Your task to perform on an android device: choose inbox layout in the gmail app Image 0: 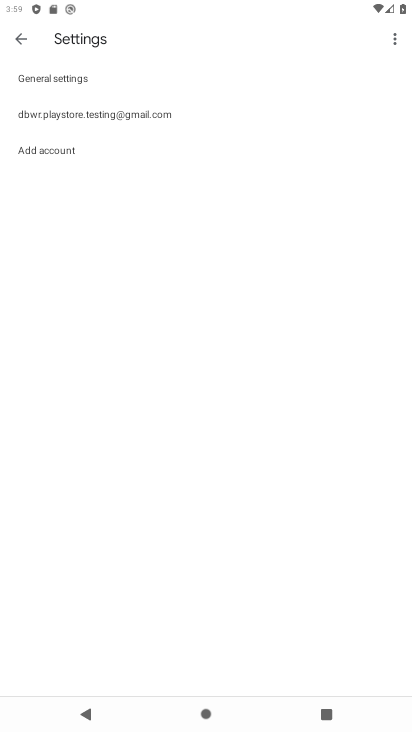
Step 0: press home button
Your task to perform on an android device: choose inbox layout in the gmail app Image 1: 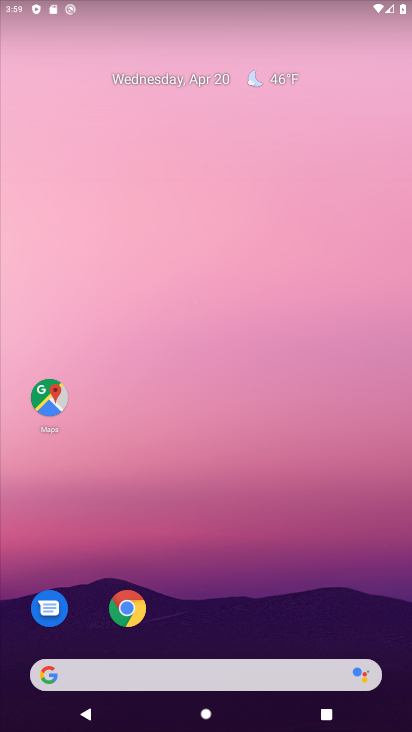
Step 1: drag from (198, 649) to (120, 35)
Your task to perform on an android device: choose inbox layout in the gmail app Image 2: 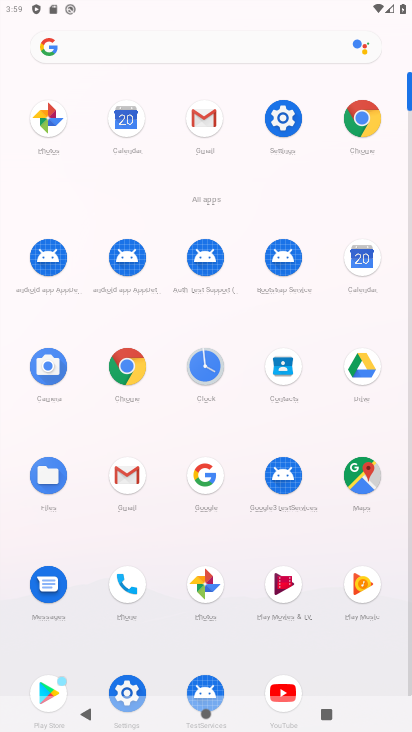
Step 2: click (132, 481)
Your task to perform on an android device: choose inbox layout in the gmail app Image 3: 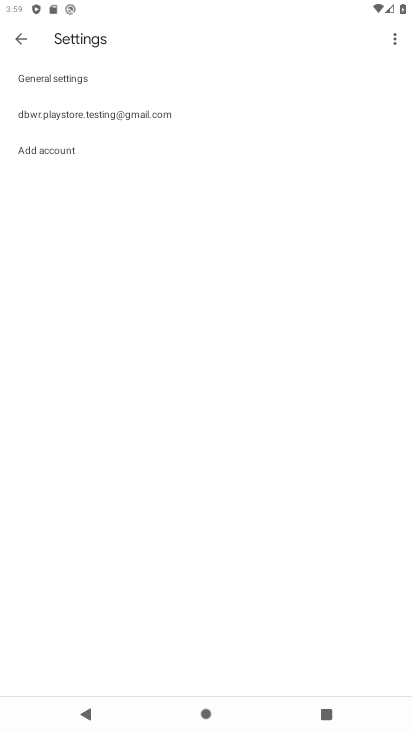
Step 3: click (91, 107)
Your task to perform on an android device: choose inbox layout in the gmail app Image 4: 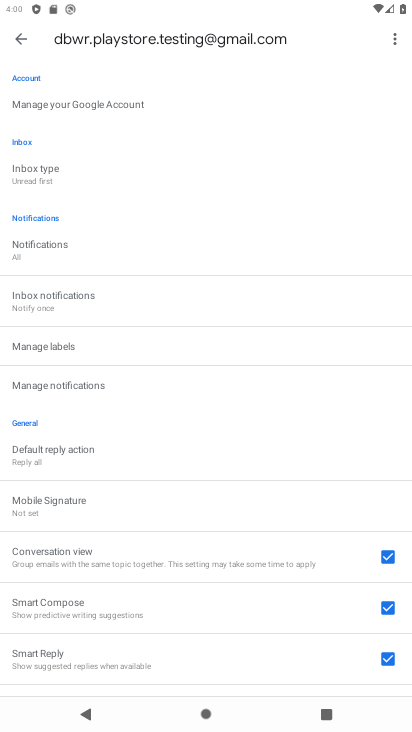
Step 4: click (39, 164)
Your task to perform on an android device: choose inbox layout in the gmail app Image 5: 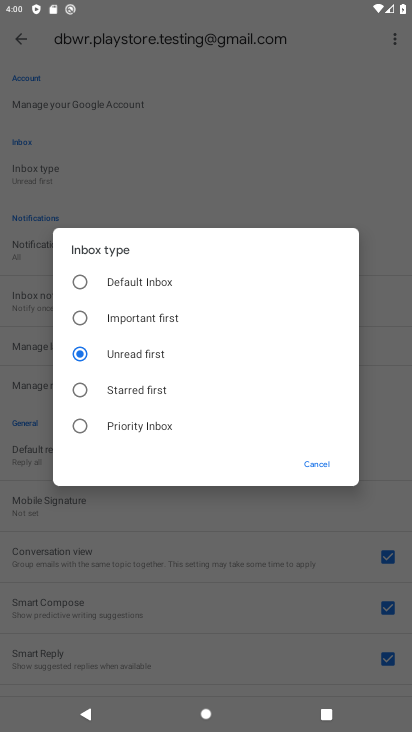
Step 5: click (91, 434)
Your task to perform on an android device: choose inbox layout in the gmail app Image 6: 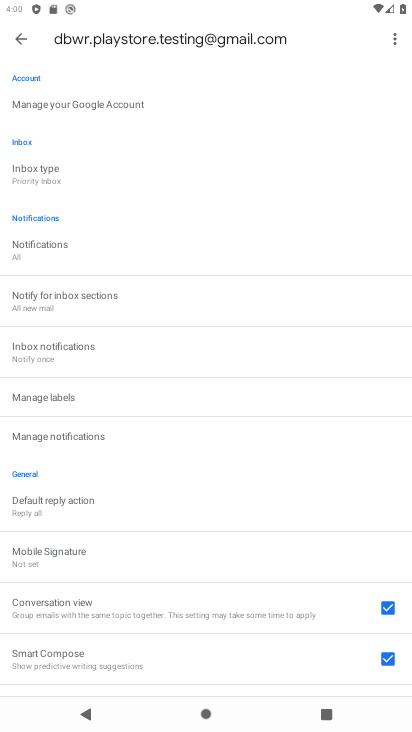
Step 6: click (15, 49)
Your task to perform on an android device: choose inbox layout in the gmail app Image 7: 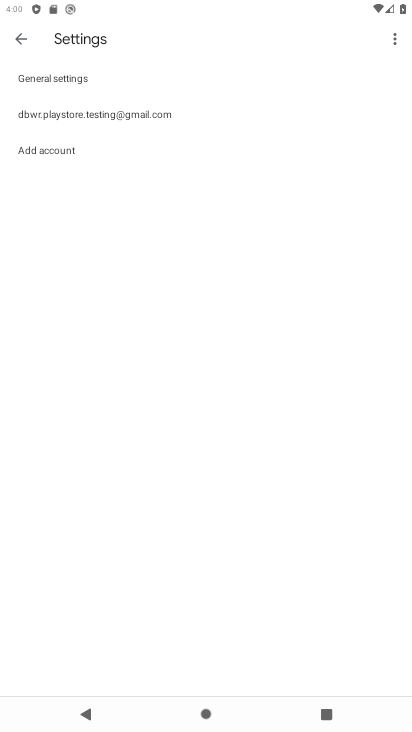
Step 7: click (15, 49)
Your task to perform on an android device: choose inbox layout in the gmail app Image 8: 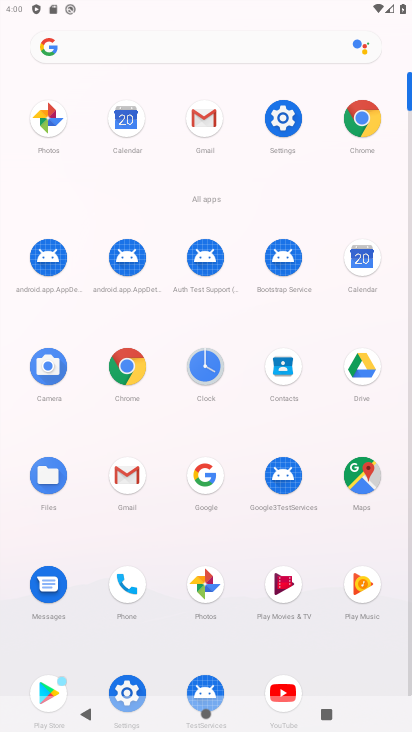
Step 8: click (192, 116)
Your task to perform on an android device: choose inbox layout in the gmail app Image 9: 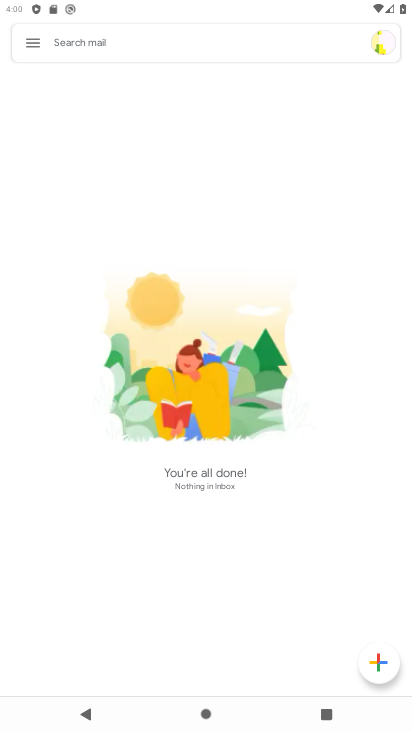
Step 9: task complete